Your task to perform on an android device: Open Maps and search for coffee Image 0: 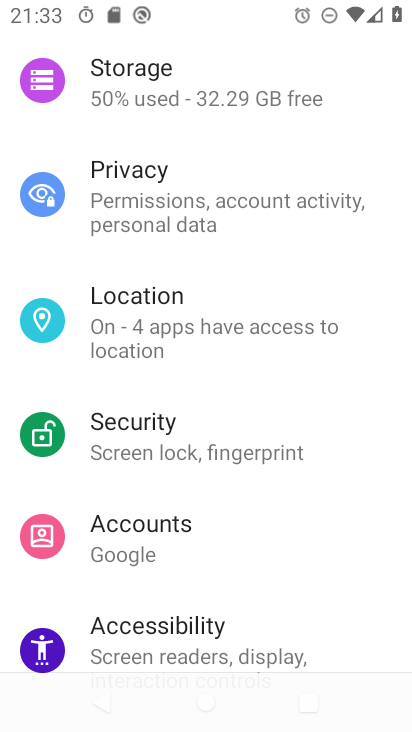
Step 0: drag from (303, 546) to (301, 373)
Your task to perform on an android device: Open Maps and search for coffee Image 1: 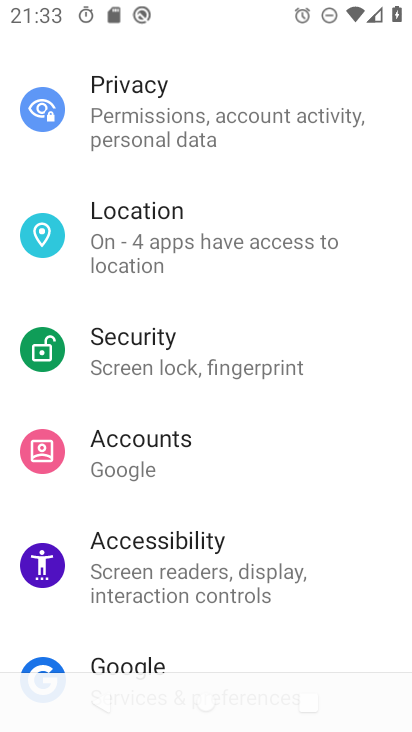
Step 1: press home button
Your task to perform on an android device: Open Maps and search for coffee Image 2: 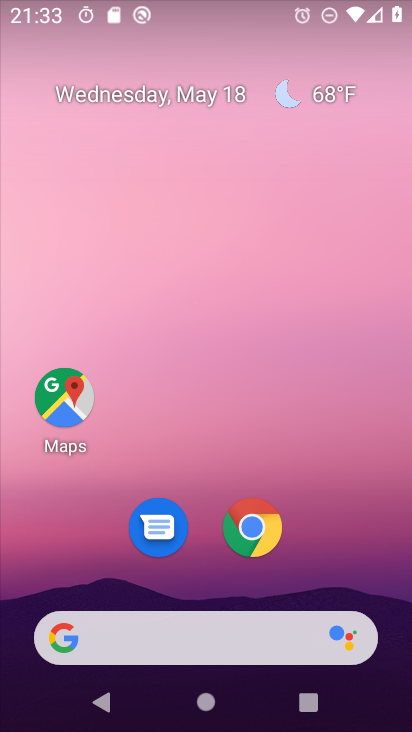
Step 2: click (64, 407)
Your task to perform on an android device: Open Maps and search for coffee Image 3: 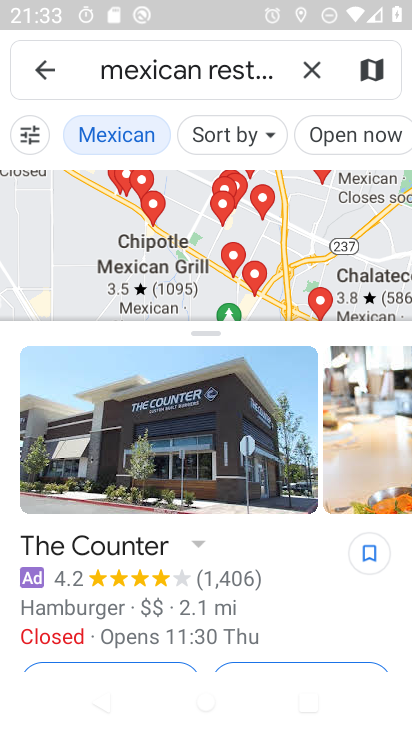
Step 3: click (306, 56)
Your task to perform on an android device: Open Maps and search for coffee Image 4: 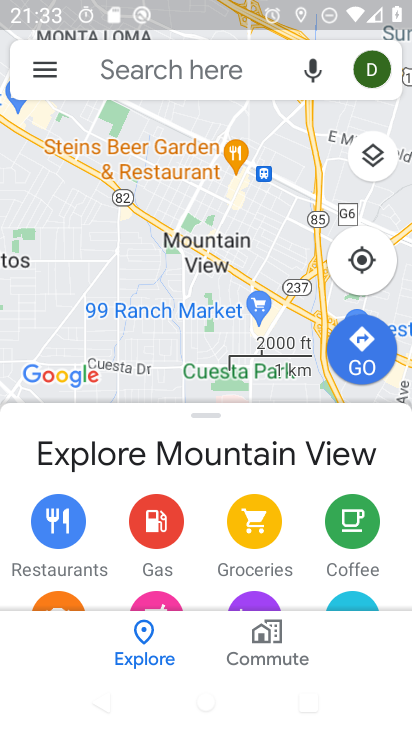
Step 4: click (161, 64)
Your task to perform on an android device: Open Maps and search for coffee Image 5: 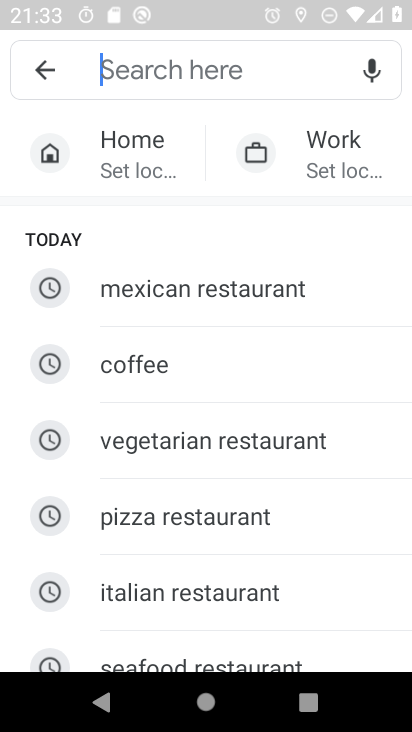
Step 5: type "coffee"
Your task to perform on an android device: Open Maps and search for coffee Image 6: 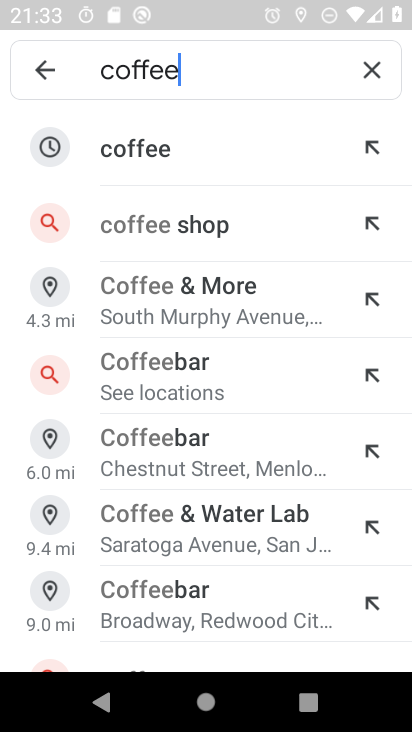
Step 6: click (105, 147)
Your task to perform on an android device: Open Maps and search for coffee Image 7: 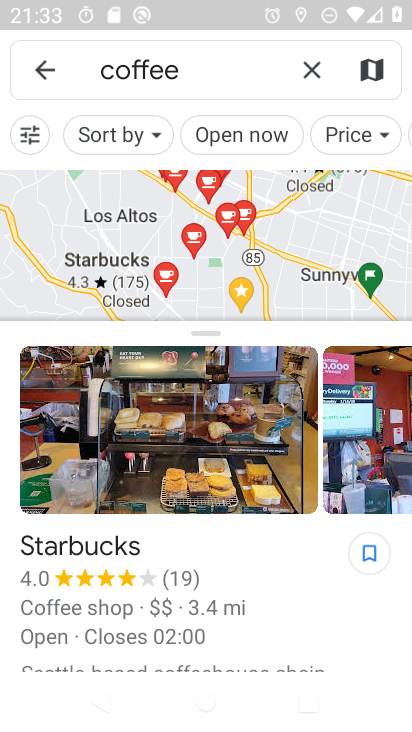
Step 7: task complete